Your task to perform on an android device: Show the shopping cart on amazon.com. Search for "rayovac triple a" on amazon.com, select the first entry, and add it to the cart. Image 0: 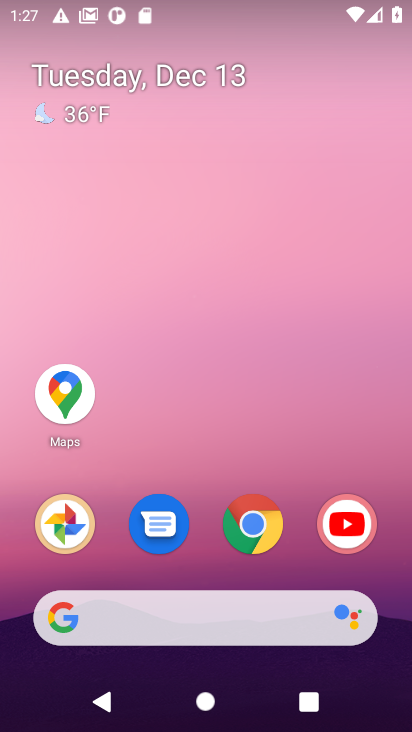
Step 0: click (254, 524)
Your task to perform on an android device: Show the shopping cart on amazon.com. Search for "rayovac triple a" on amazon.com, select the first entry, and add it to the cart. Image 1: 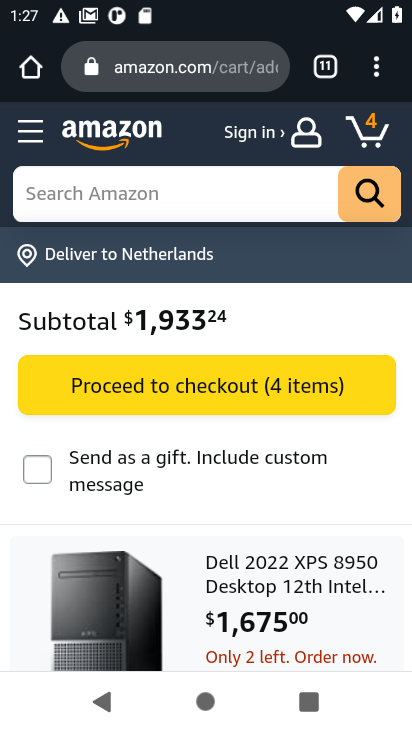
Step 1: click (369, 124)
Your task to perform on an android device: Show the shopping cart on amazon.com. Search for "rayovac triple a" on amazon.com, select the first entry, and add it to the cart. Image 2: 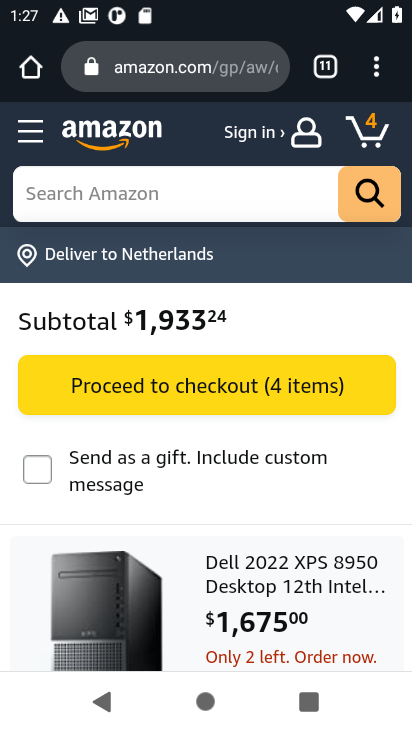
Step 2: click (368, 135)
Your task to perform on an android device: Show the shopping cart on amazon.com. Search for "rayovac triple a" on amazon.com, select the first entry, and add it to the cart. Image 3: 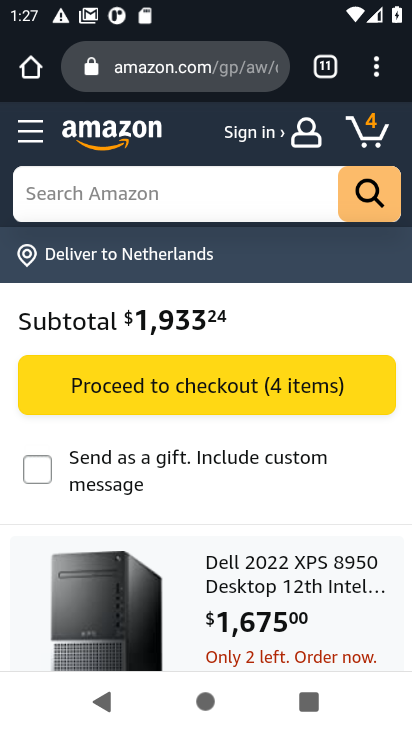
Step 3: drag from (239, 487) to (242, 229)
Your task to perform on an android device: Show the shopping cart on amazon.com. Search for "rayovac triple a" on amazon.com, select the first entry, and add it to the cart. Image 4: 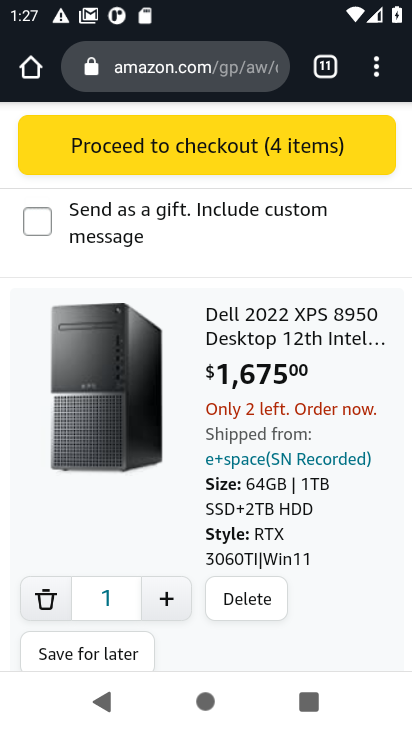
Step 4: drag from (212, 289) to (185, 578)
Your task to perform on an android device: Show the shopping cart on amazon.com. Search for "rayovac triple a" on amazon.com, select the first entry, and add it to the cart. Image 5: 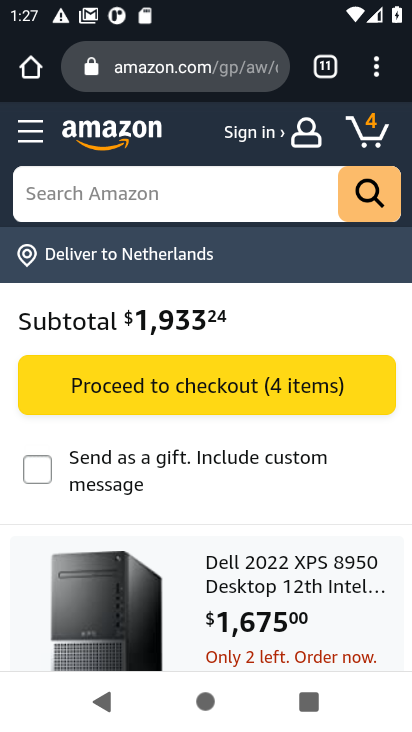
Step 5: click (97, 194)
Your task to perform on an android device: Show the shopping cart on amazon.com. Search for "rayovac triple a" on amazon.com, select the first entry, and add it to the cart. Image 6: 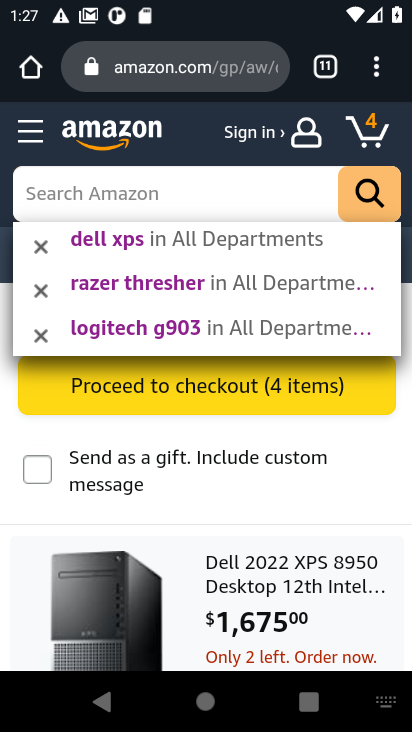
Step 6: type "rayovac triple a"
Your task to perform on an android device: Show the shopping cart on amazon.com. Search for "rayovac triple a" on amazon.com, select the first entry, and add it to the cart. Image 7: 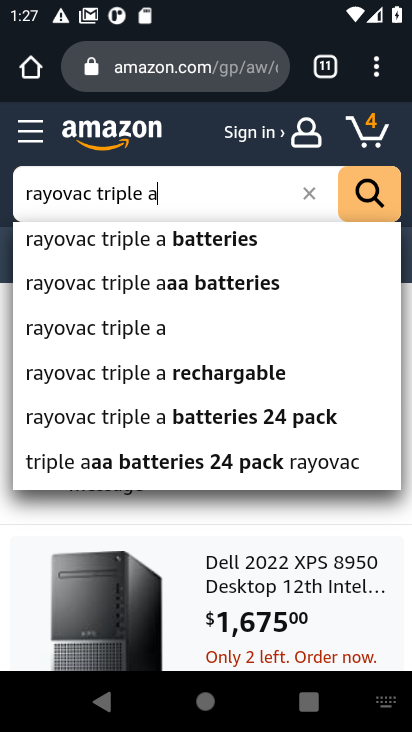
Step 7: click (144, 242)
Your task to perform on an android device: Show the shopping cart on amazon.com. Search for "rayovac triple a" on amazon.com, select the first entry, and add it to the cart. Image 8: 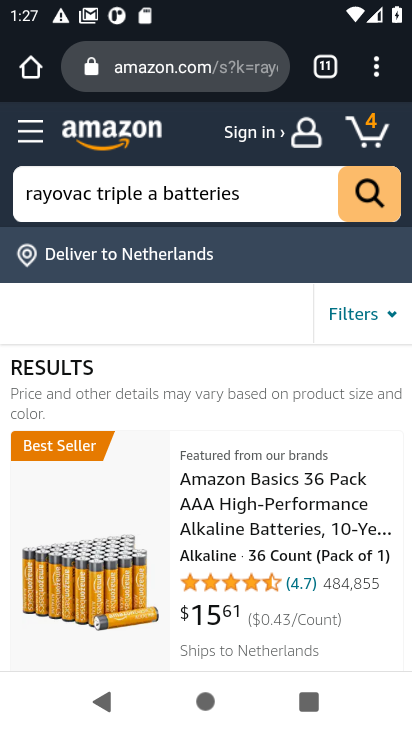
Step 8: task complete